Your task to perform on an android device: Open ESPN.com Image 0: 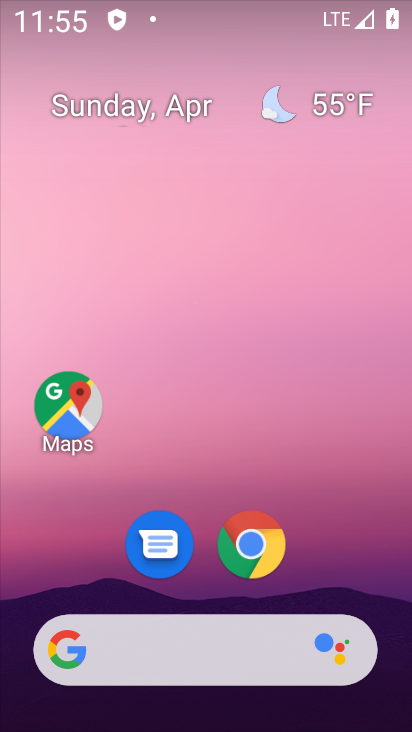
Step 0: click (246, 548)
Your task to perform on an android device: Open ESPN.com Image 1: 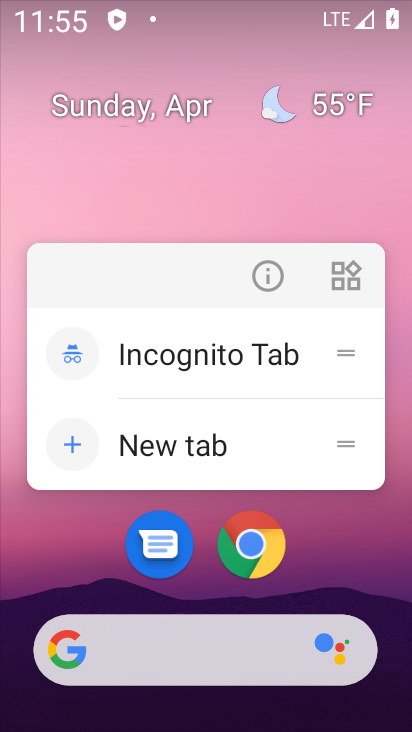
Step 1: click (258, 543)
Your task to perform on an android device: Open ESPN.com Image 2: 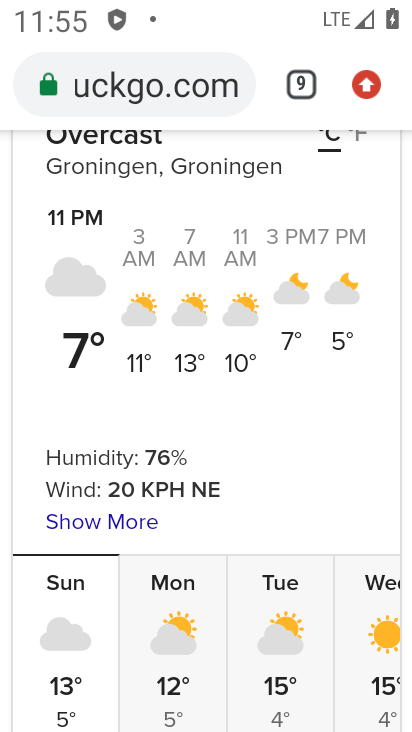
Step 2: click (298, 89)
Your task to perform on an android device: Open ESPN.com Image 3: 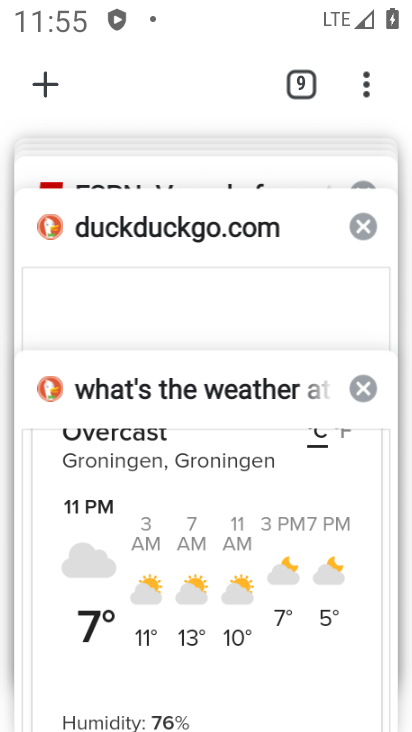
Step 3: drag from (178, 230) to (133, 613)
Your task to perform on an android device: Open ESPN.com Image 4: 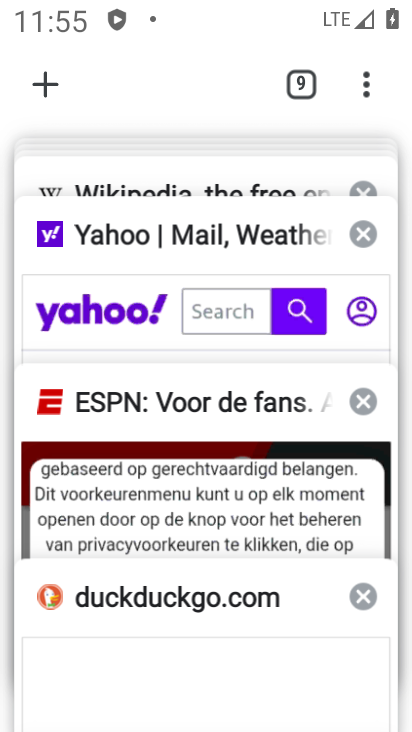
Step 4: click (156, 472)
Your task to perform on an android device: Open ESPN.com Image 5: 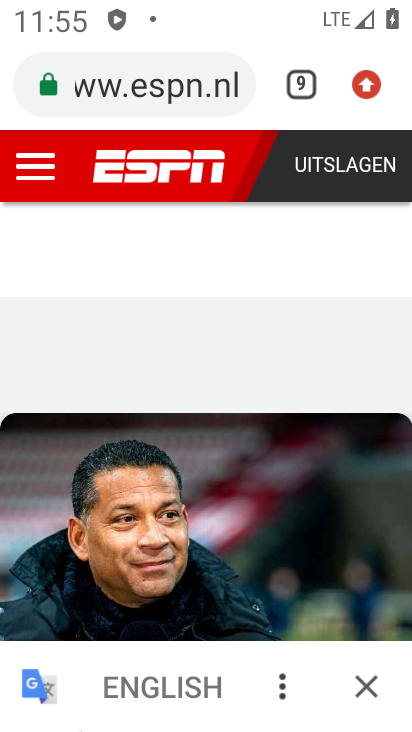
Step 5: task complete